Your task to perform on an android device: check storage Image 0: 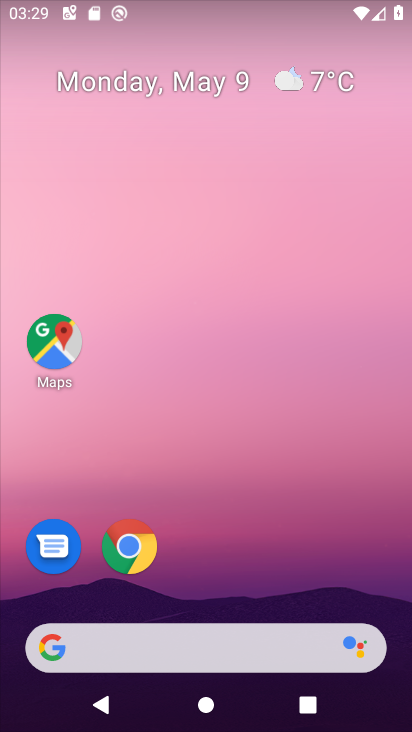
Step 0: drag from (230, 495) to (236, 19)
Your task to perform on an android device: check storage Image 1: 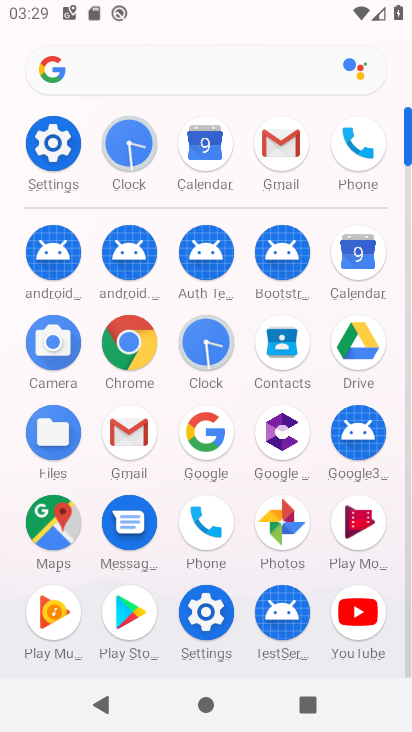
Step 1: click (54, 160)
Your task to perform on an android device: check storage Image 2: 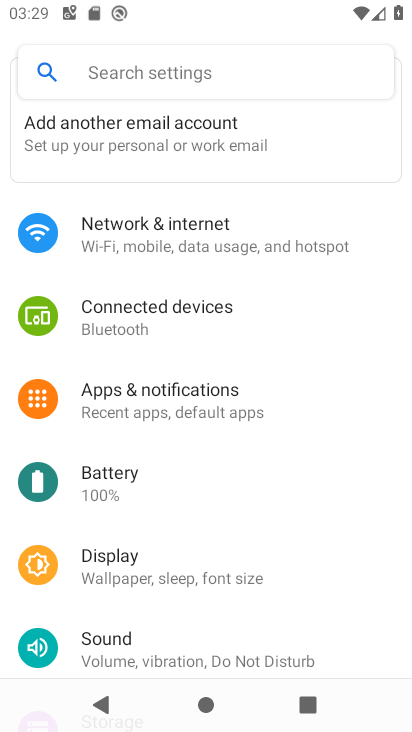
Step 2: drag from (233, 613) to (188, 135)
Your task to perform on an android device: check storage Image 3: 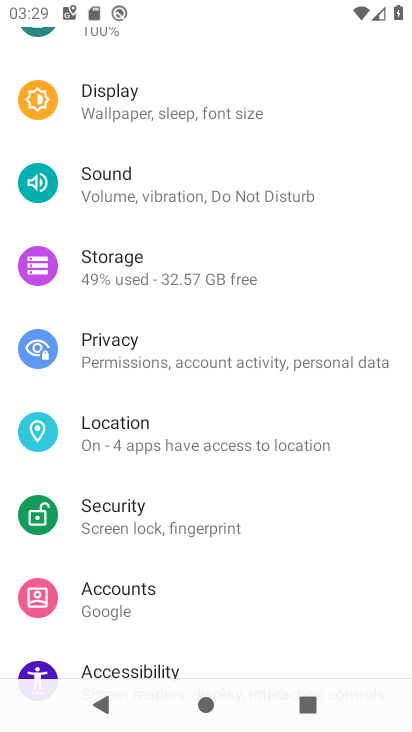
Step 3: click (196, 255)
Your task to perform on an android device: check storage Image 4: 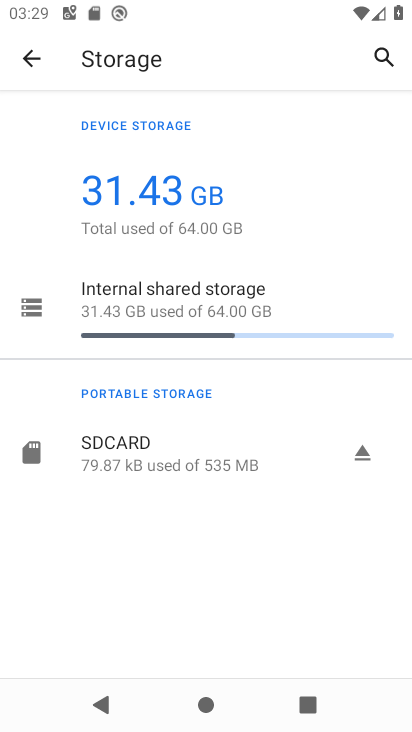
Step 4: task complete